Your task to perform on an android device: turn off wifi Image 0: 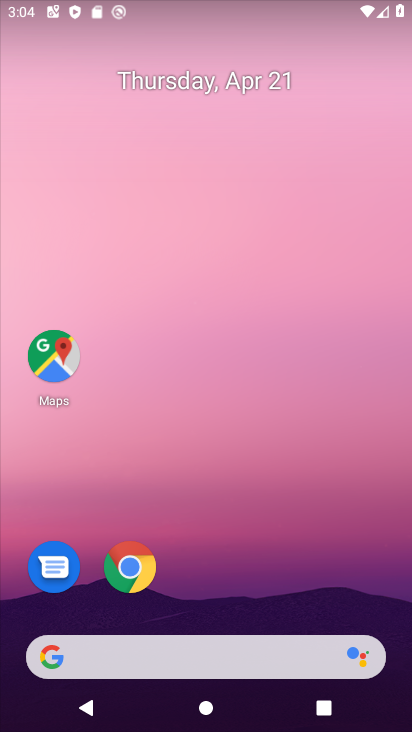
Step 0: drag from (290, 20) to (305, 498)
Your task to perform on an android device: turn off wifi Image 1: 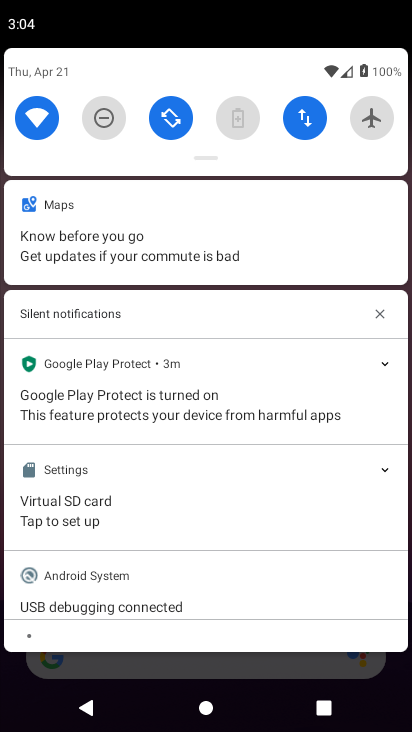
Step 1: click (28, 123)
Your task to perform on an android device: turn off wifi Image 2: 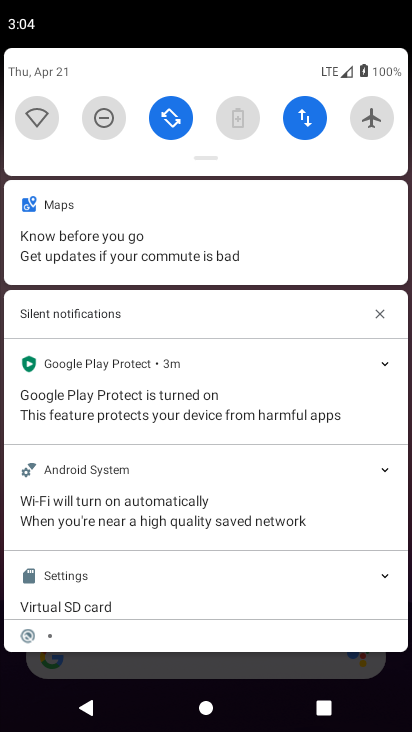
Step 2: task complete